Your task to perform on an android device: Go to accessibility settings Image 0: 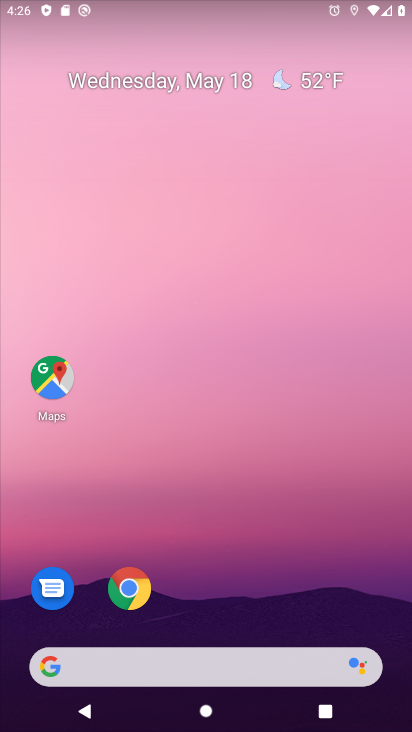
Step 0: drag from (282, 562) to (291, 146)
Your task to perform on an android device: Go to accessibility settings Image 1: 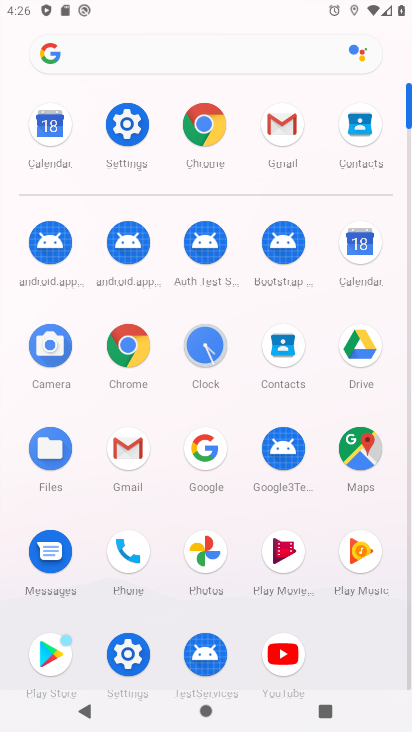
Step 1: click (123, 126)
Your task to perform on an android device: Go to accessibility settings Image 2: 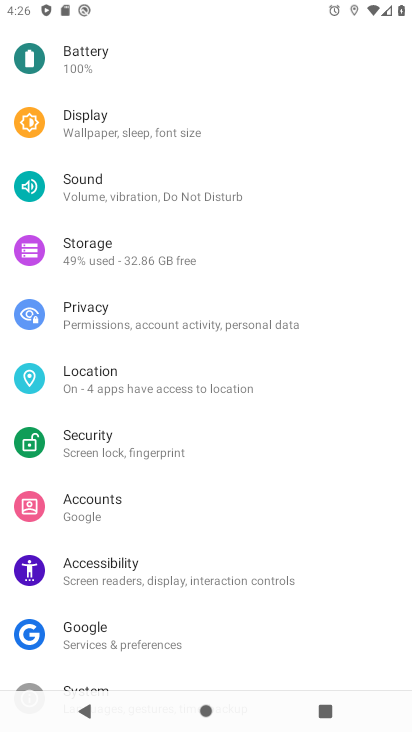
Step 2: drag from (164, 551) to (258, 104)
Your task to perform on an android device: Go to accessibility settings Image 3: 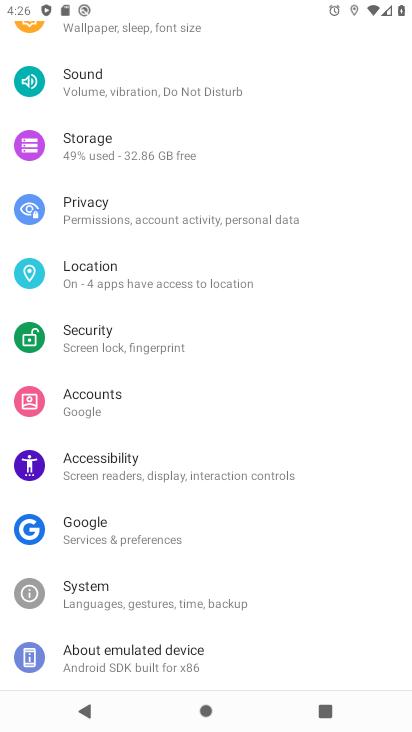
Step 3: drag from (223, 631) to (128, 83)
Your task to perform on an android device: Go to accessibility settings Image 4: 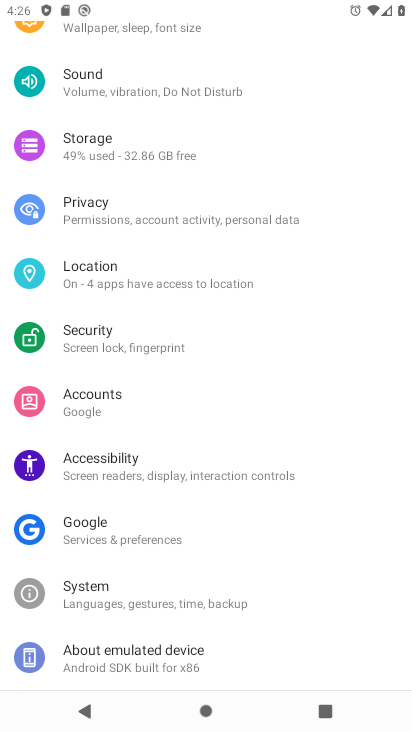
Step 4: click (127, 447)
Your task to perform on an android device: Go to accessibility settings Image 5: 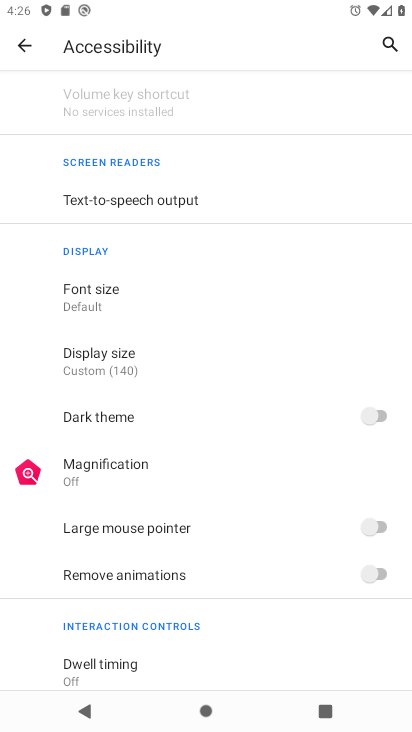
Step 5: task complete